Your task to perform on an android device: check the backup settings in the google photos Image 0: 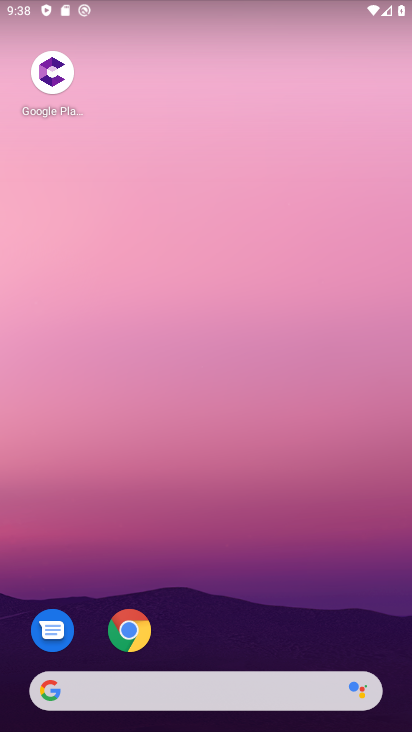
Step 0: drag from (223, 640) to (229, 135)
Your task to perform on an android device: check the backup settings in the google photos Image 1: 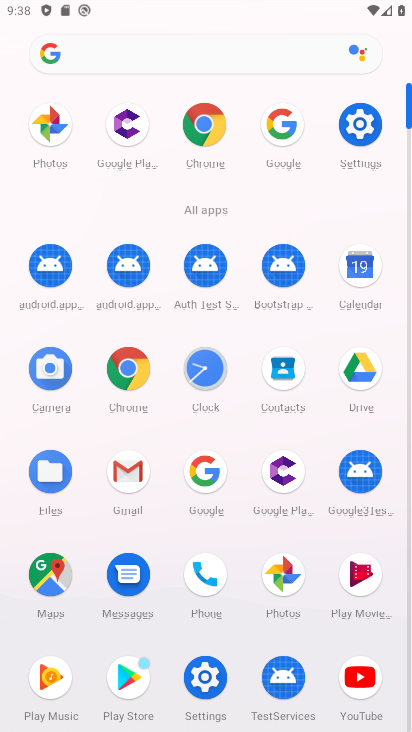
Step 1: click (42, 120)
Your task to perform on an android device: check the backup settings in the google photos Image 2: 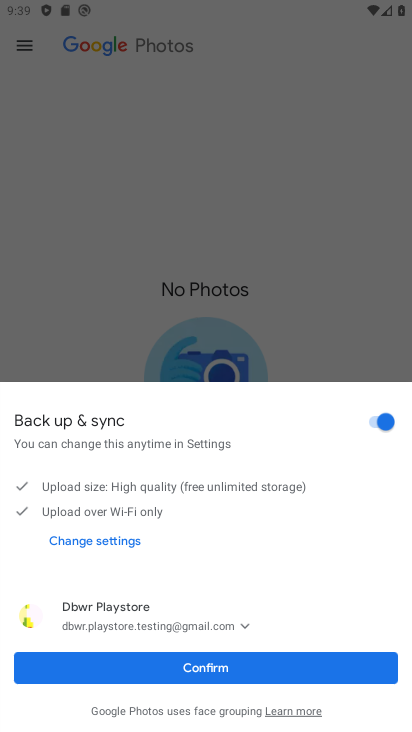
Step 2: click (177, 667)
Your task to perform on an android device: check the backup settings in the google photos Image 3: 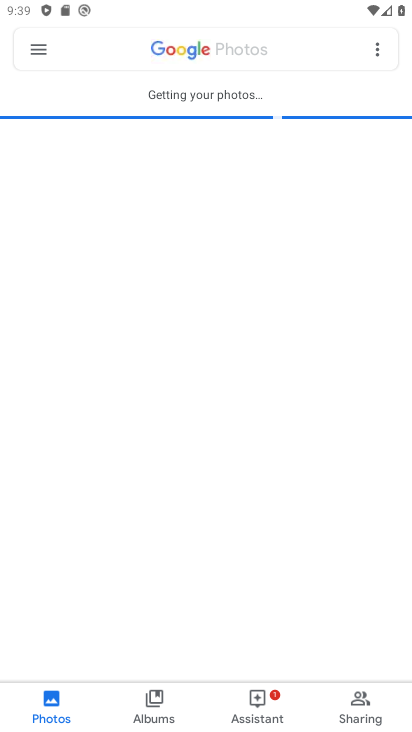
Step 3: click (213, 660)
Your task to perform on an android device: check the backup settings in the google photos Image 4: 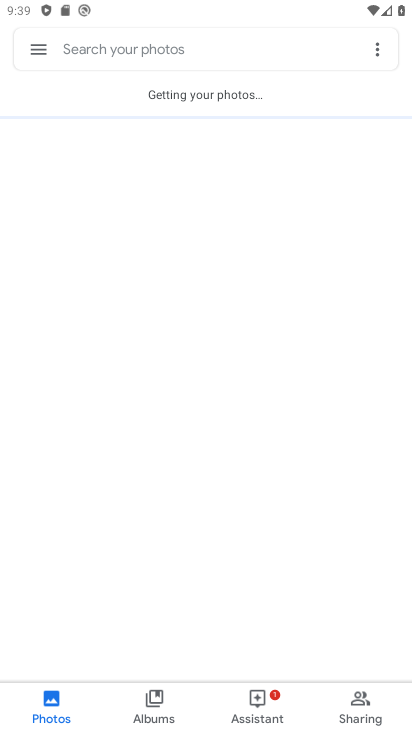
Step 4: click (35, 49)
Your task to perform on an android device: check the backup settings in the google photos Image 5: 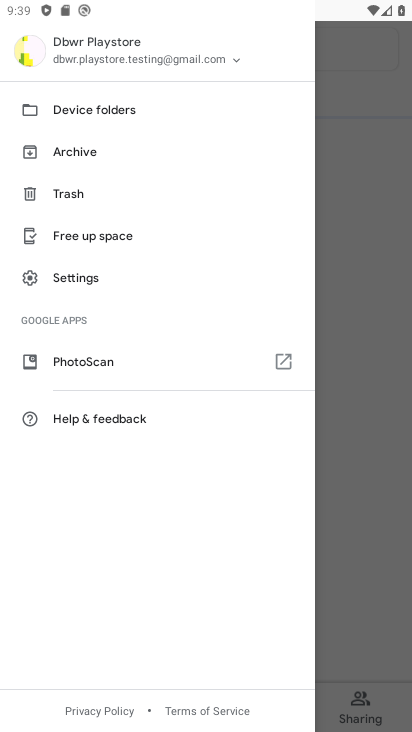
Step 5: click (88, 279)
Your task to perform on an android device: check the backup settings in the google photos Image 6: 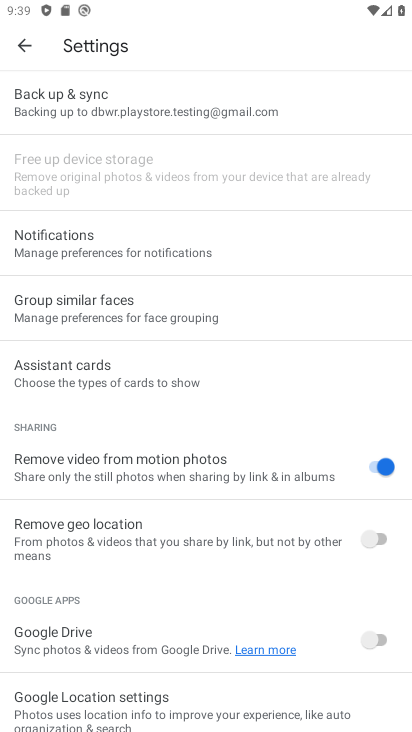
Step 6: click (160, 97)
Your task to perform on an android device: check the backup settings in the google photos Image 7: 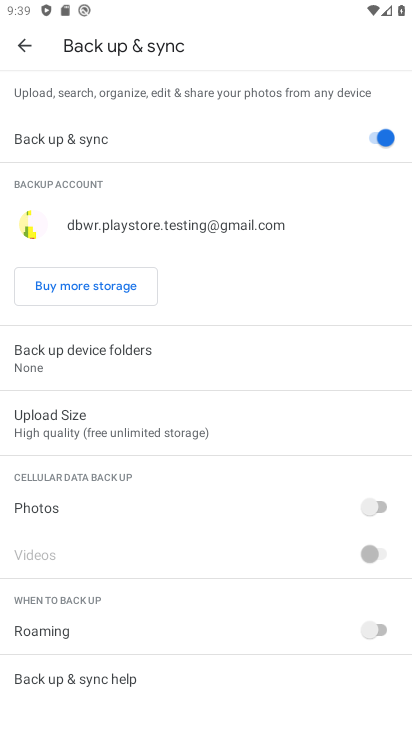
Step 7: drag from (160, 609) to (177, 205)
Your task to perform on an android device: check the backup settings in the google photos Image 8: 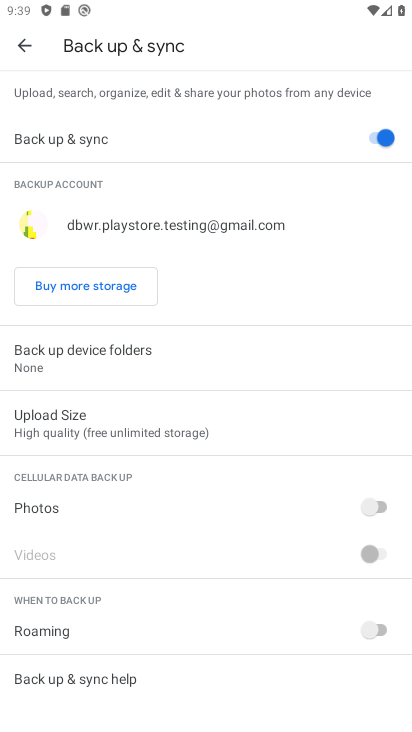
Step 8: click (99, 130)
Your task to perform on an android device: check the backup settings in the google photos Image 9: 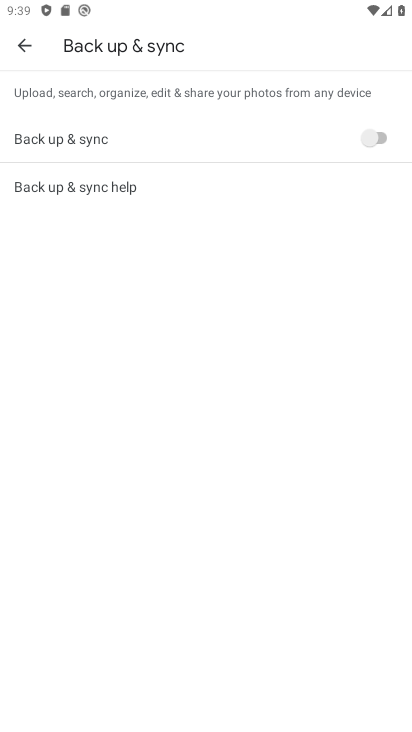
Step 9: click (91, 137)
Your task to perform on an android device: check the backup settings in the google photos Image 10: 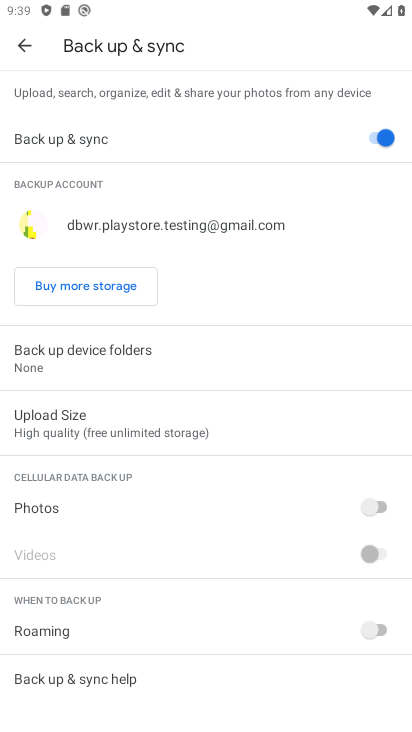
Step 10: task complete